Your task to perform on an android device: snooze an email in the gmail app Image 0: 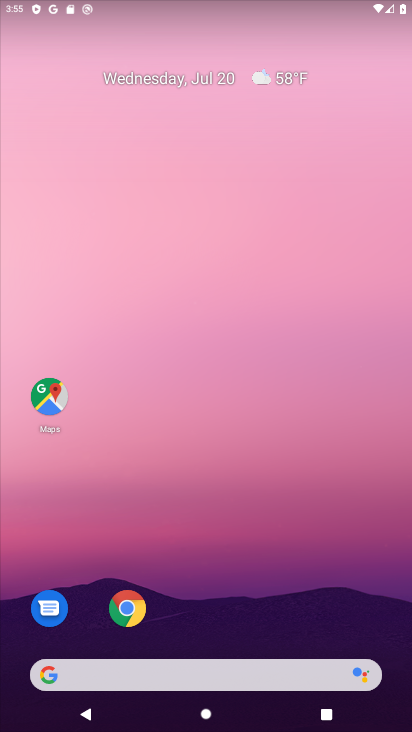
Step 0: drag from (196, 629) to (207, 74)
Your task to perform on an android device: snooze an email in the gmail app Image 1: 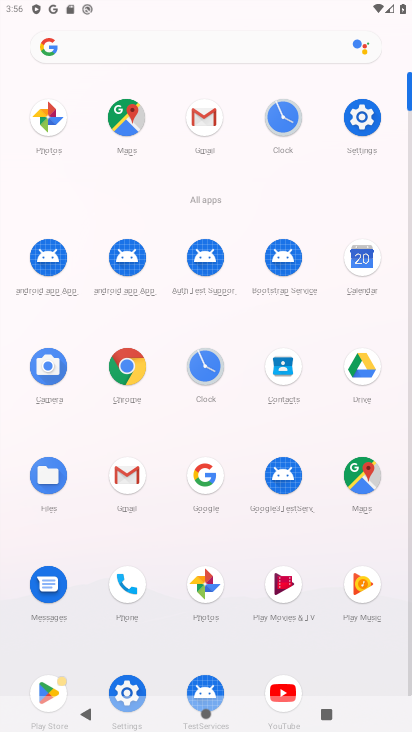
Step 1: click (120, 484)
Your task to perform on an android device: snooze an email in the gmail app Image 2: 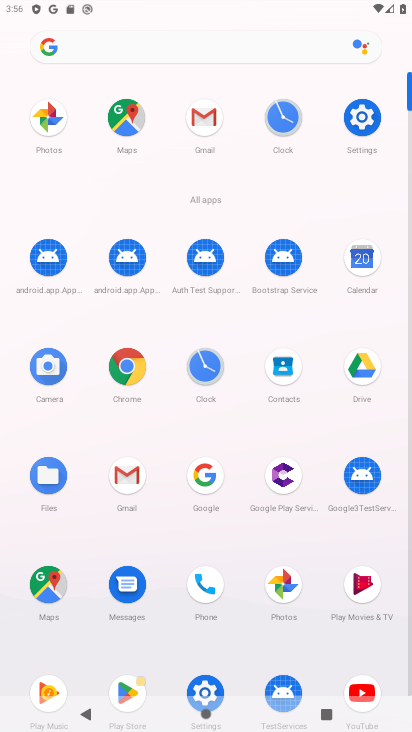
Step 2: click (125, 476)
Your task to perform on an android device: snooze an email in the gmail app Image 3: 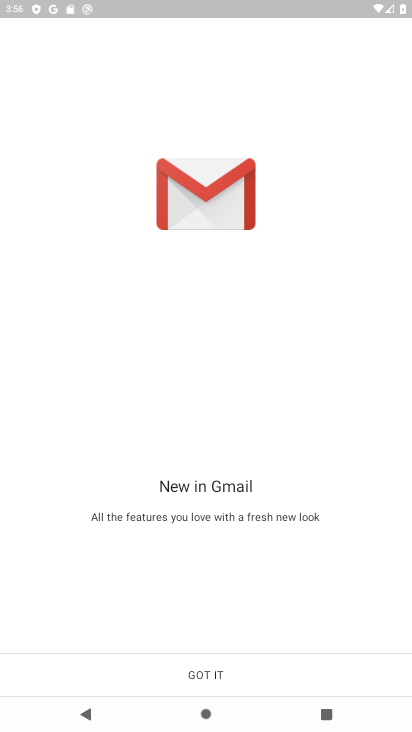
Step 3: click (226, 677)
Your task to perform on an android device: snooze an email in the gmail app Image 4: 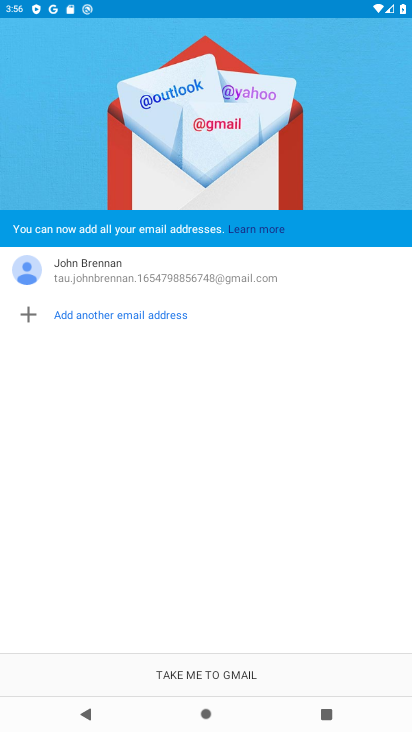
Step 4: click (227, 669)
Your task to perform on an android device: snooze an email in the gmail app Image 5: 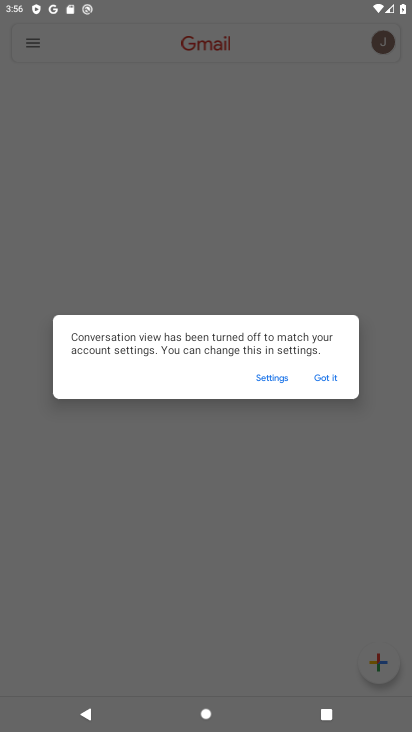
Step 5: click (322, 380)
Your task to perform on an android device: snooze an email in the gmail app Image 6: 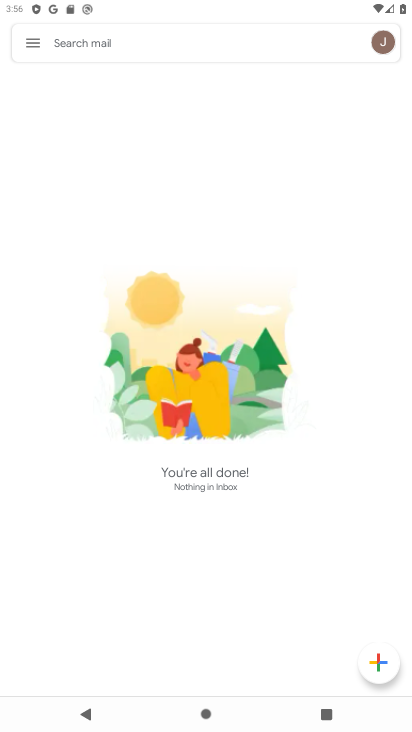
Step 6: task complete